Your task to perform on an android device: Open accessibility settings Image 0: 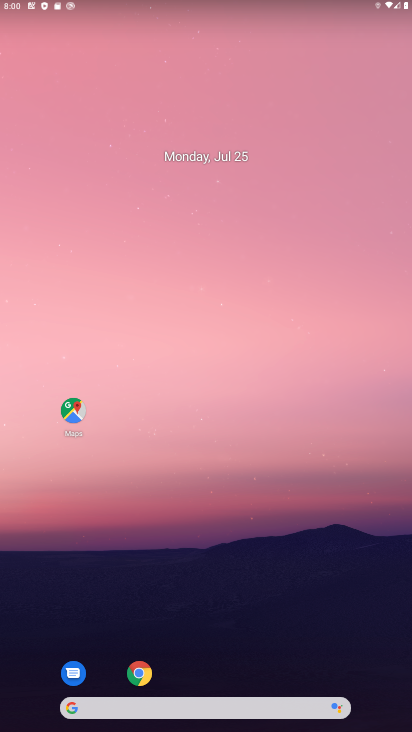
Step 0: drag from (291, 696) to (291, 309)
Your task to perform on an android device: Open accessibility settings Image 1: 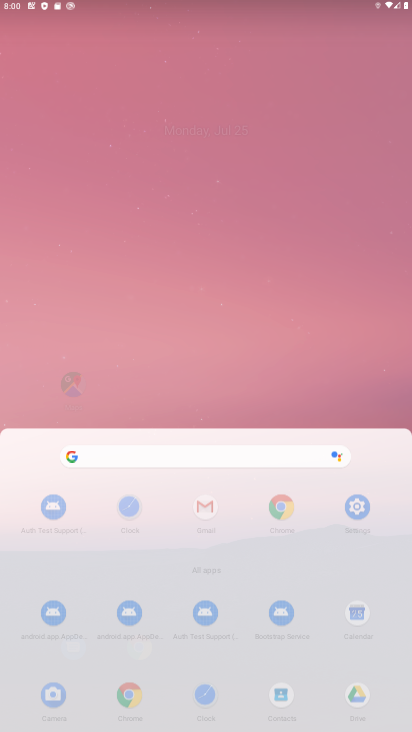
Step 1: drag from (231, 609) to (248, 198)
Your task to perform on an android device: Open accessibility settings Image 2: 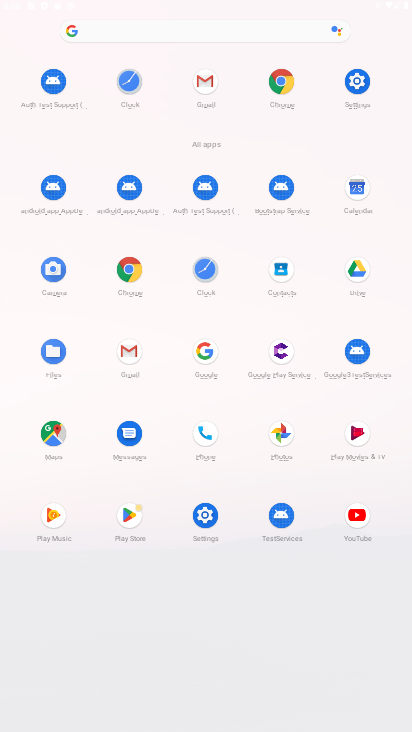
Step 2: click (194, 520)
Your task to perform on an android device: Open accessibility settings Image 3: 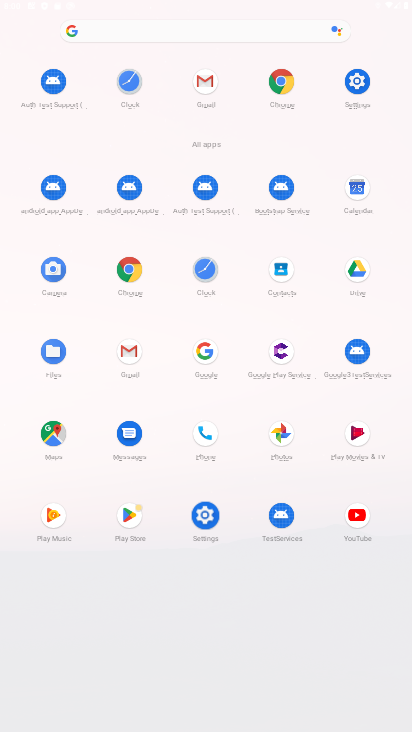
Step 3: click (207, 511)
Your task to perform on an android device: Open accessibility settings Image 4: 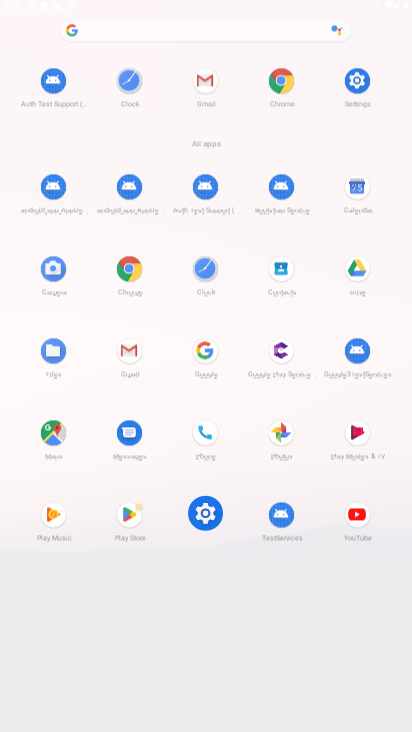
Step 4: click (207, 511)
Your task to perform on an android device: Open accessibility settings Image 5: 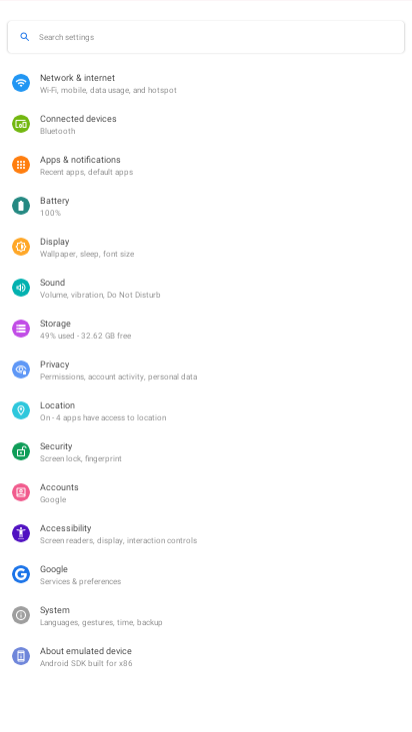
Step 5: click (207, 511)
Your task to perform on an android device: Open accessibility settings Image 6: 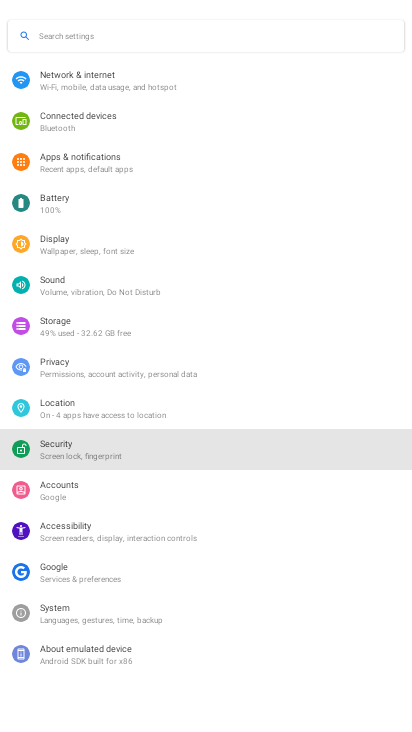
Step 6: click (207, 511)
Your task to perform on an android device: Open accessibility settings Image 7: 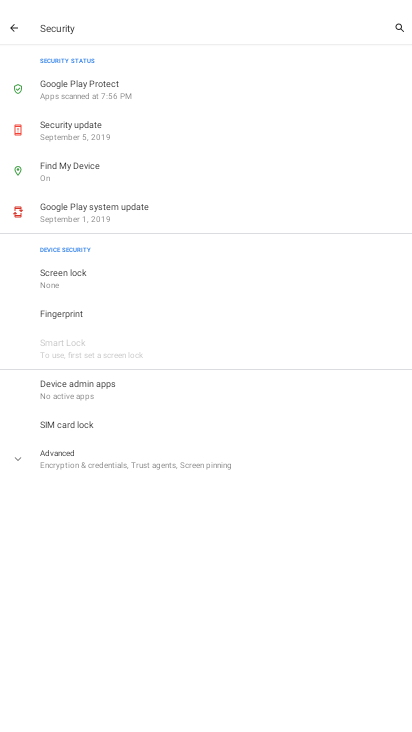
Step 7: click (12, 27)
Your task to perform on an android device: Open accessibility settings Image 8: 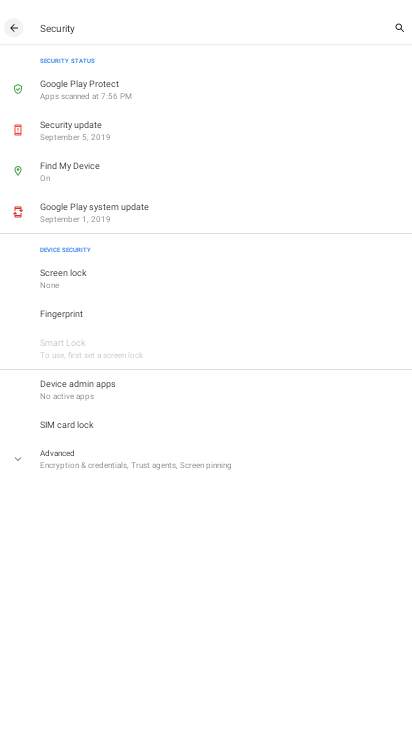
Step 8: click (12, 27)
Your task to perform on an android device: Open accessibility settings Image 9: 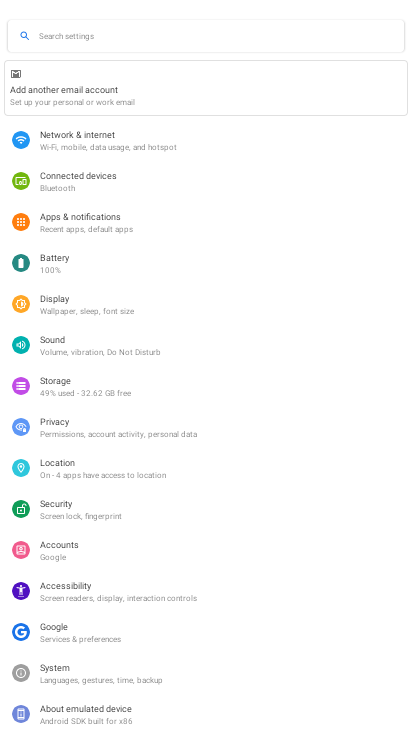
Step 9: click (51, 585)
Your task to perform on an android device: Open accessibility settings Image 10: 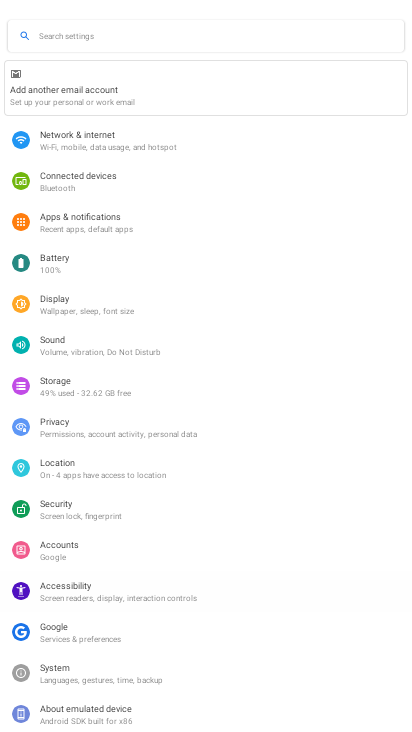
Step 10: click (52, 584)
Your task to perform on an android device: Open accessibility settings Image 11: 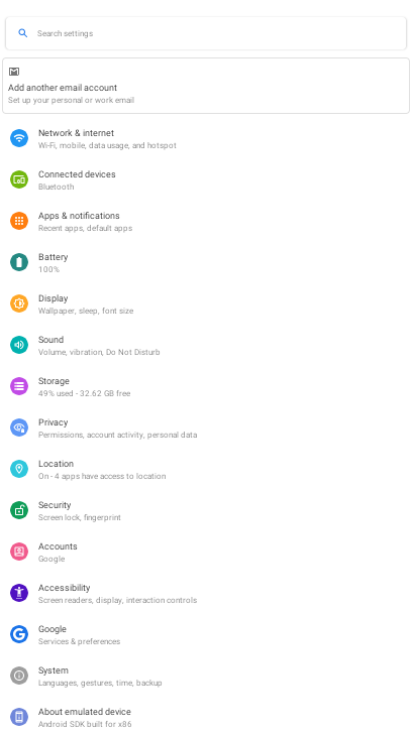
Step 11: click (53, 584)
Your task to perform on an android device: Open accessibility settings Image 12: 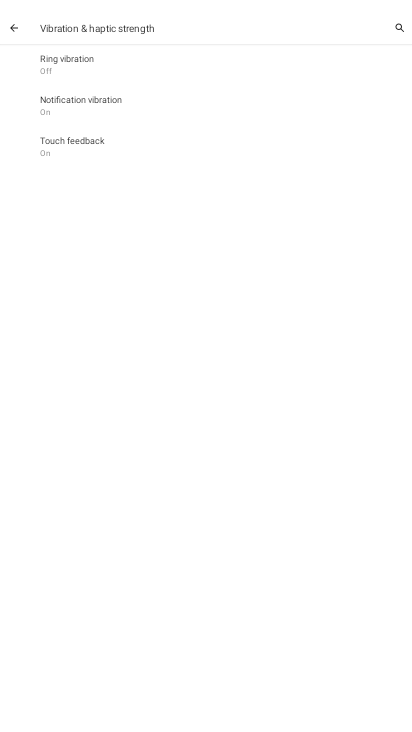
Step 12: task complete